Your task to perform on an android device: refresh tabs in the chrome app Image 0: 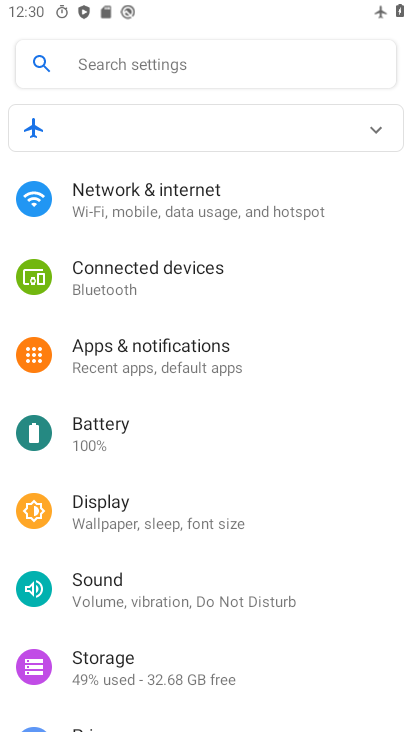
Step 0: press home button
Your task to perform on an android device: refresh tabs in the chrome app Image 1: 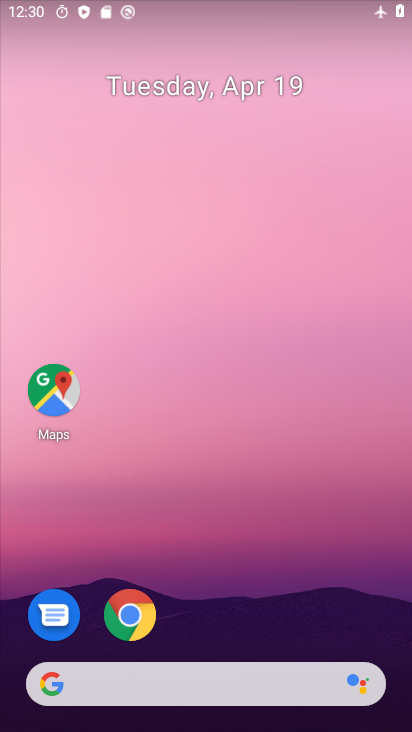
Step 1: drag from (375, 605) to (373, 42)
Your task to perform on an android device: refresh tabs in the chrome app Image 2: 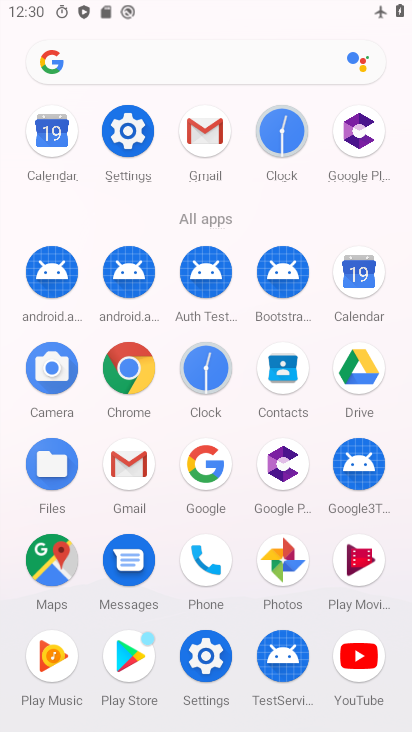
Step 2: click (127, 377)
Your task to perform on an android device: refresh tabs in the chrome app Image 3: 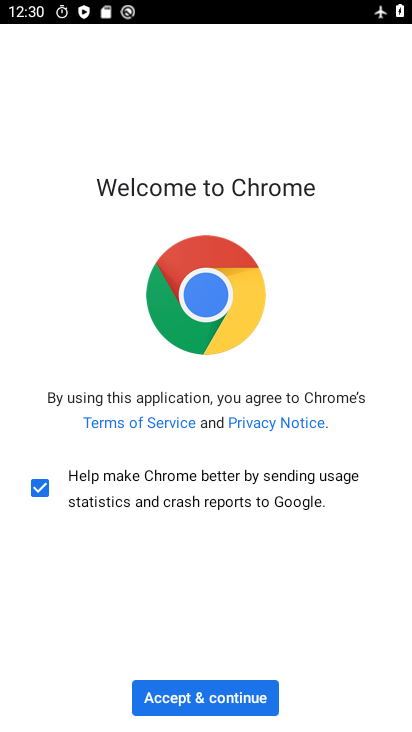
Step 3: click (187, 694)
Your task to perform on an android device: refresh tabs in the chrome app Image 4: 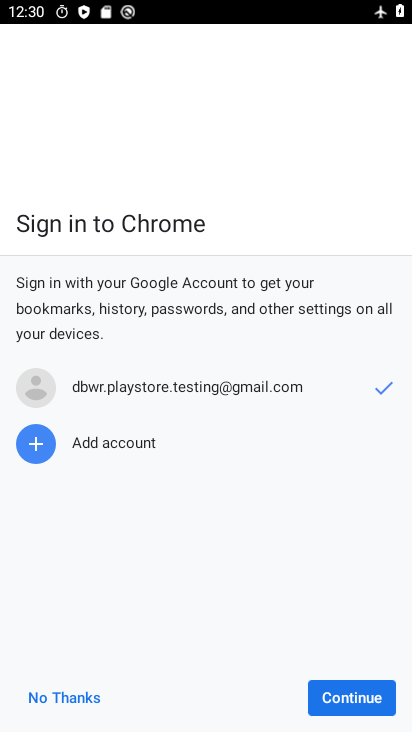
Step 4: click (333, 694)
Your task to perform on an android device: refresh tabs in the chrome app Image 5: 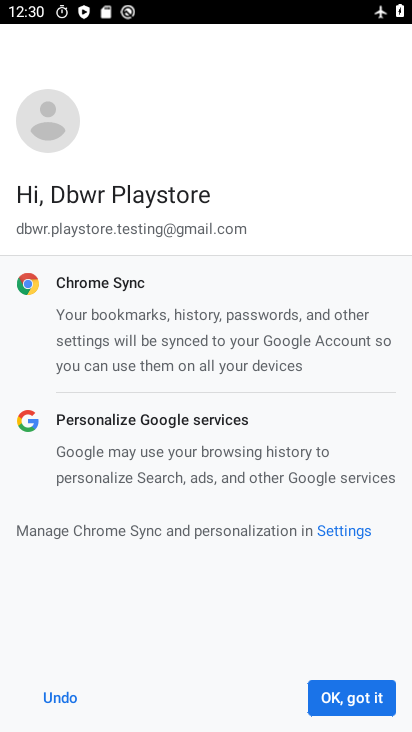
Step 5: click (333, 694)
Your task to perform on an android device: refresh tabs in the chrome app Image 6: 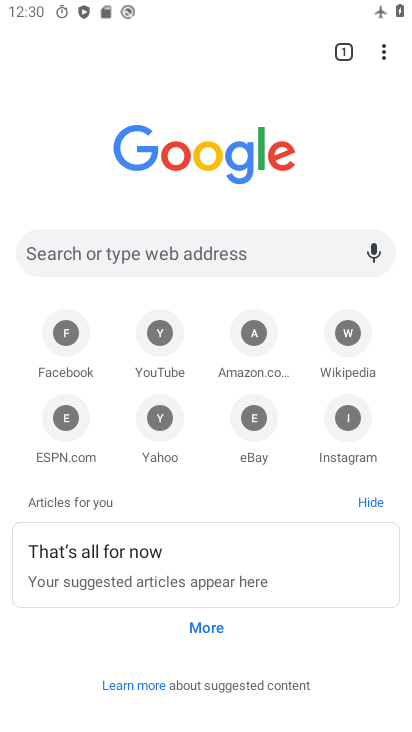
Step 6: click (381, 53)
Your task to perform on an android device: refresh tabs in the chrome app Image 7: 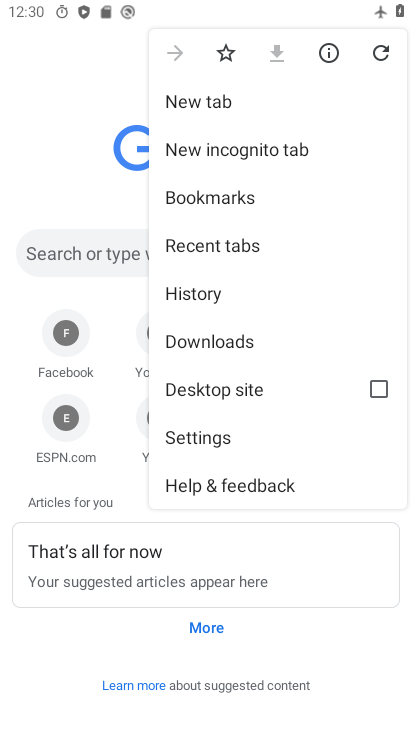
Step 7: click (381, 53)
Your task to perform on an android device: refresh tabs in the chrome app Image 8: 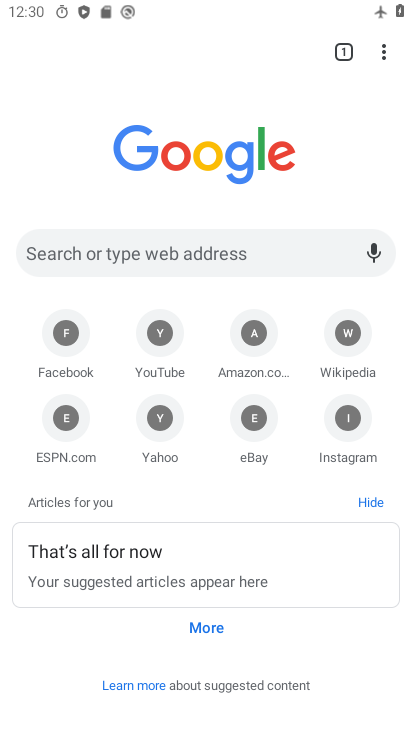
Step 8: task complete